Your task to perform on an android device: set an alarm Image 0: 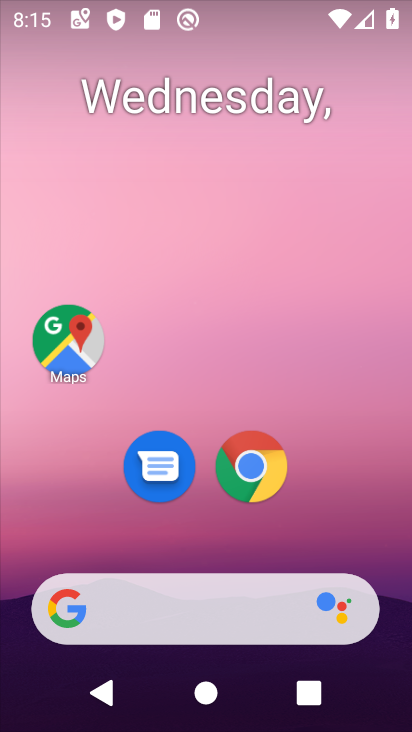
Step 0: drag from (367, 540) to (335, 60)
Your task to perform on an android device: set an alarm Image 1: 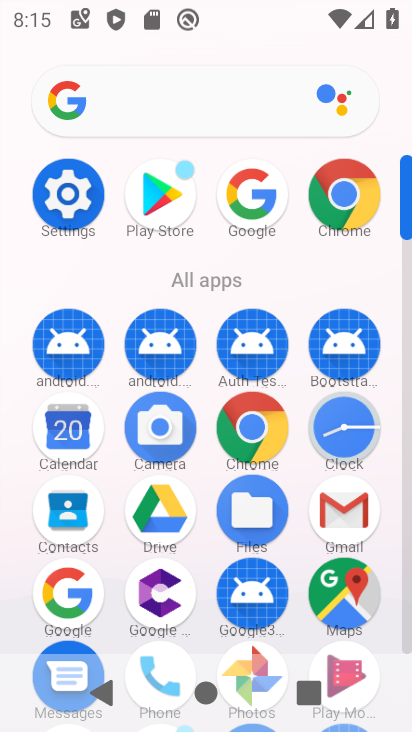
Step 1: click (359, 423)
Your task to perform on an android device: set an alarm Image 2: 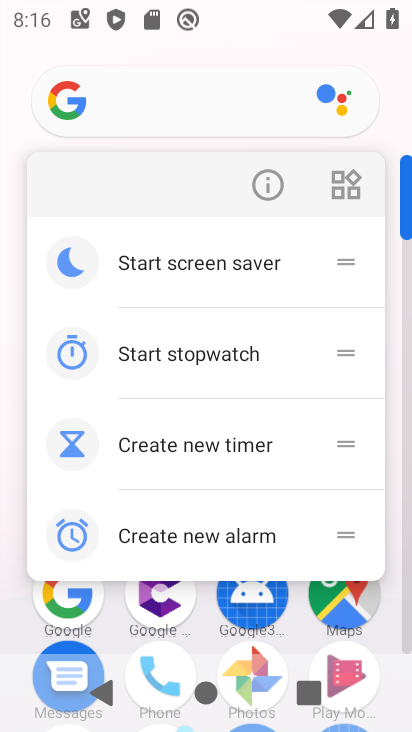
Step 2: click (410, 382)
Your task to perform on an android device: set an alarm Image 3: 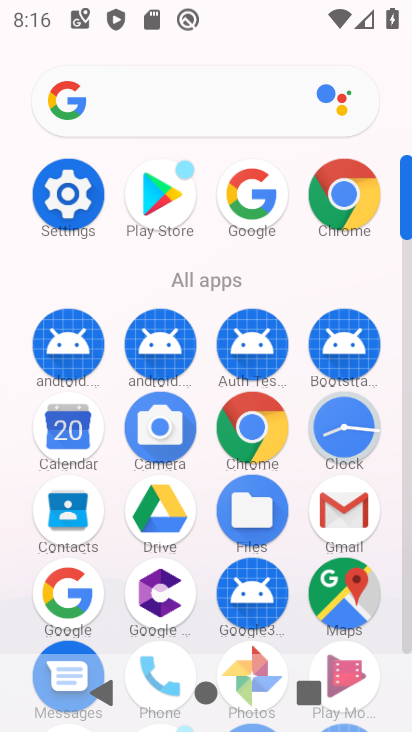
Step 3: click (347, 429)
Your task to perform on an android device: set an alarm Image 4: 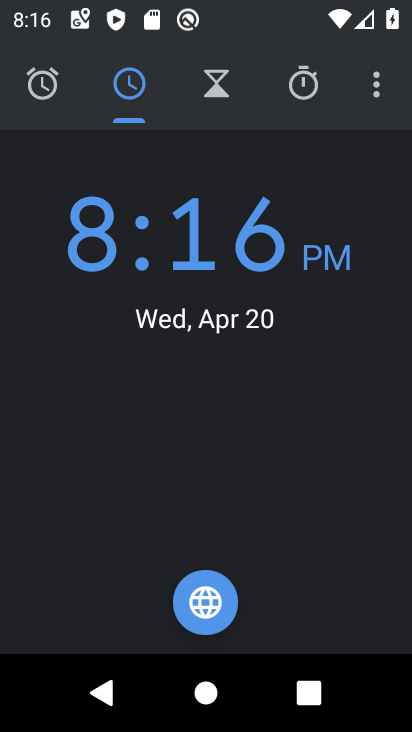
Step 4: click (54, 90)
Your task to perform on an android device: set an alarm Image 5: 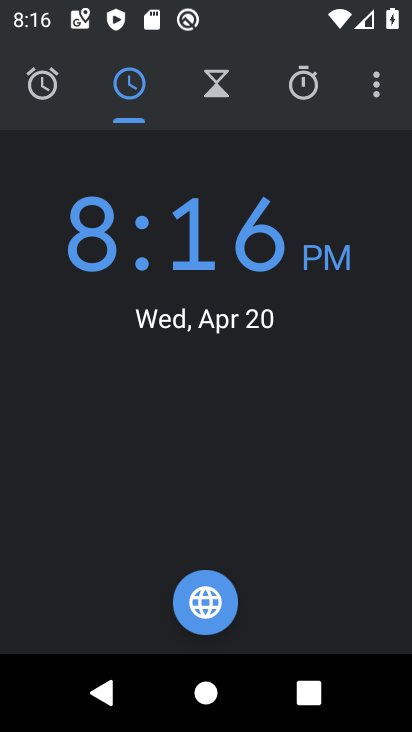
Step 5: click (54, 120)
Your task to perform on an android device: set an alarm Image 6: 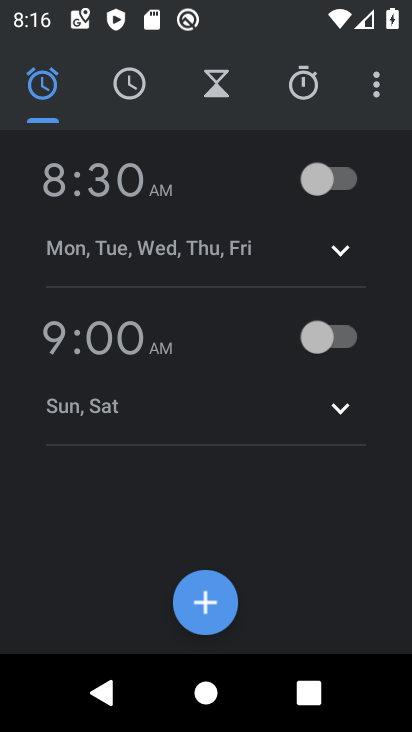
Step 6: click (208, 586)
Your task to perform on an android device: set an alarm Image 7: 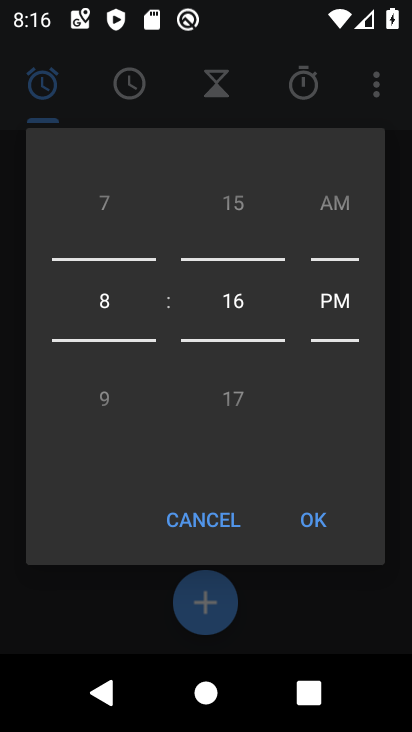
Step 7: click (301, 517)
Your task to perform on an android device: set an alarm Image 8: 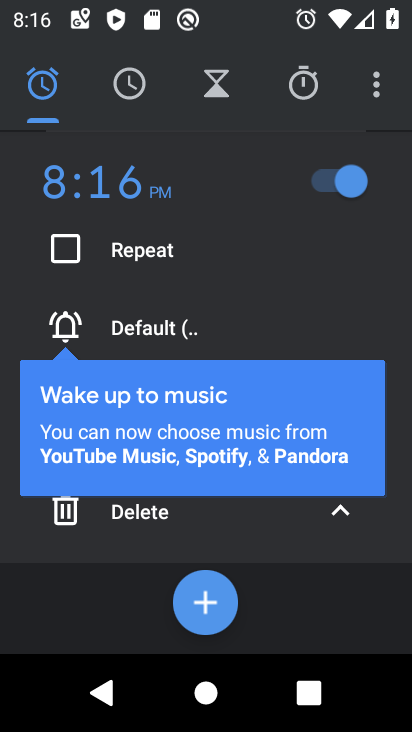
Step 8: click (349, 524)
Your task to perform on an android device: set an alarm Image 9: 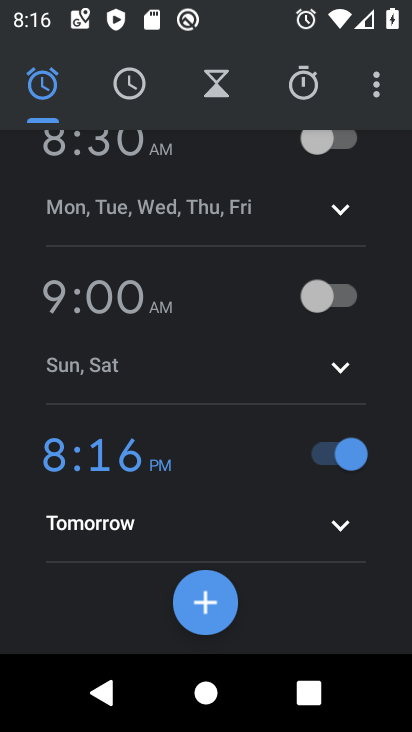
Step 9: task complete